Your task to perform on an android device: What's the weather going to be tomorrow? Image 0: 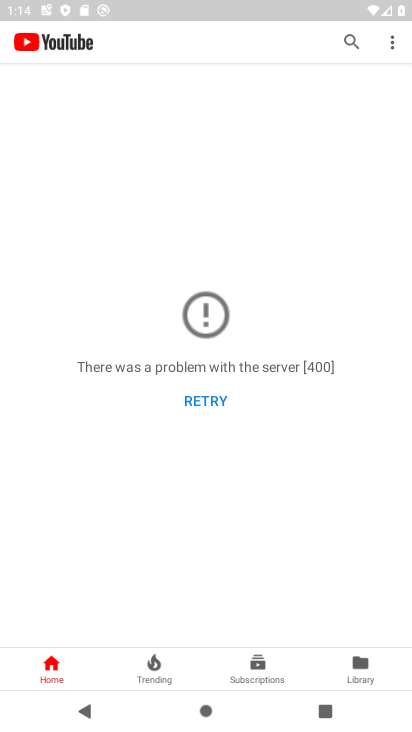
Step 0: press home button
Your task to perform on an android device: What's the weather going to be tomorrow? Image 1: 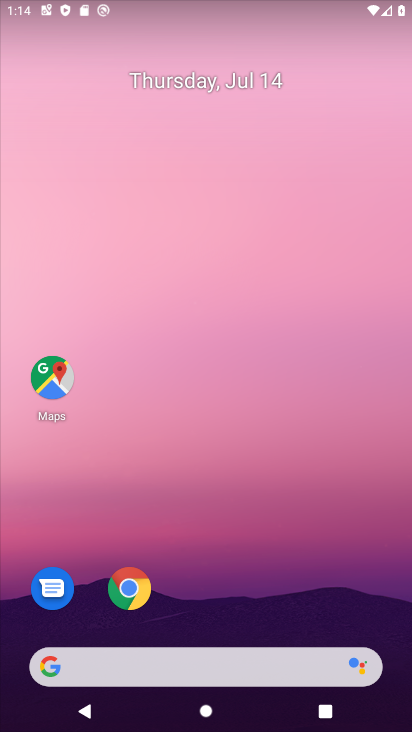
Step 1: click (182, 663)
Your task to perform on an android device: What's the weather going to be tomorrow? Image 2: 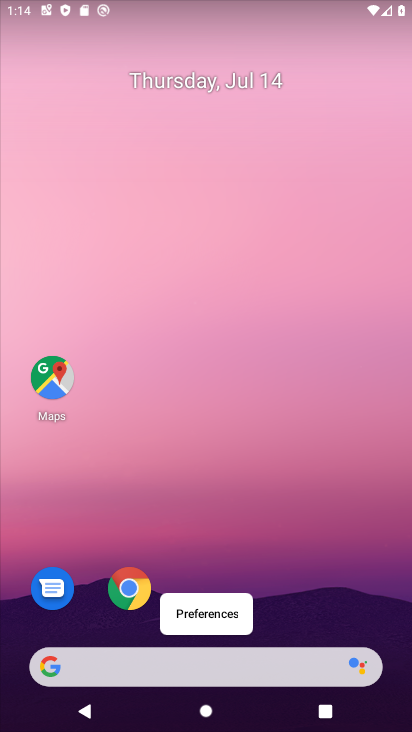
Step 2: click (194, 664)
Your task to perform on an android device: What's the weather going to be tomorrow? Image 3: 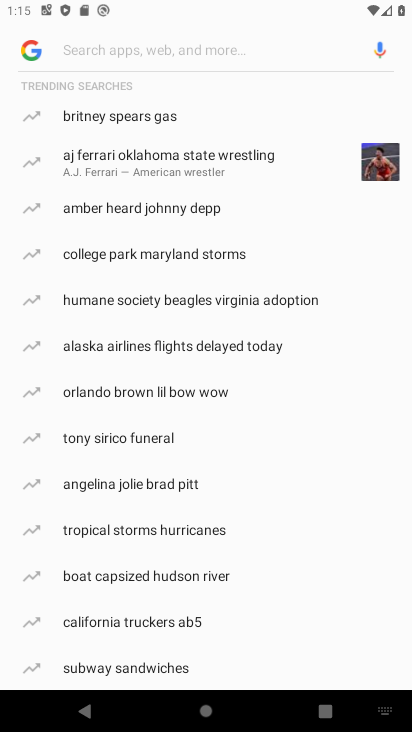
Step 3: type "weather"
Your task to perform on an android device: What's the weather going to be tomorrow? Image 4: 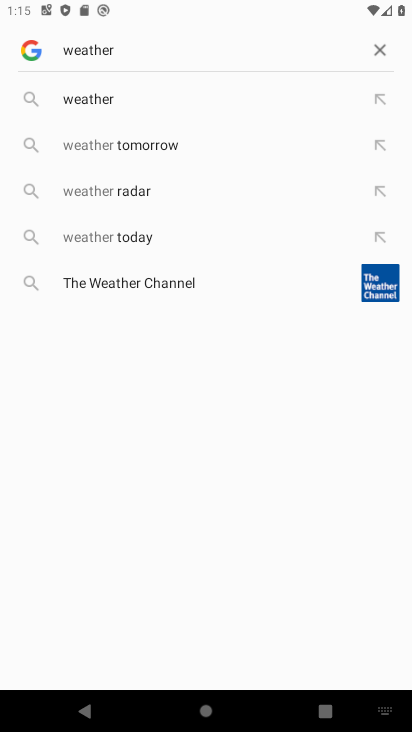
Step 4: click (195, 139)
Your task to perform on an android device: What's the weather going to be tomorrow? Image 5: 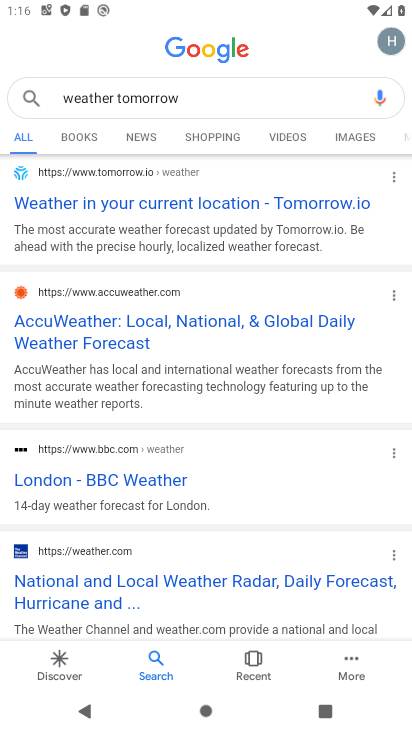
Step 5: task complete